Your task to perform on an android device: allow cookies in the chrome app Image 0: 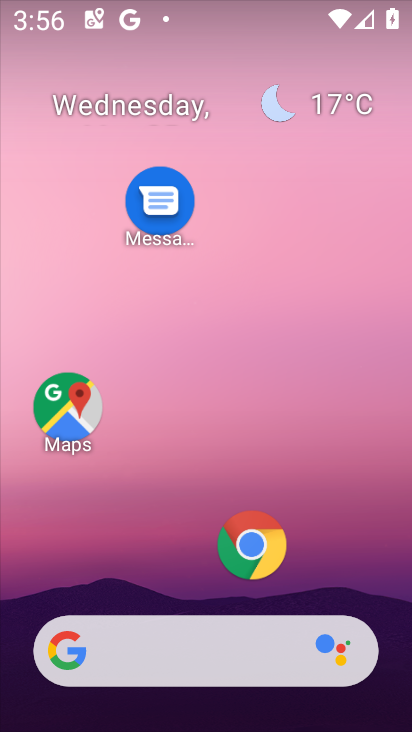
Step 0: click (259, 551)
Your task to perform on an android device: allow cookies in the chrome app Image 1: 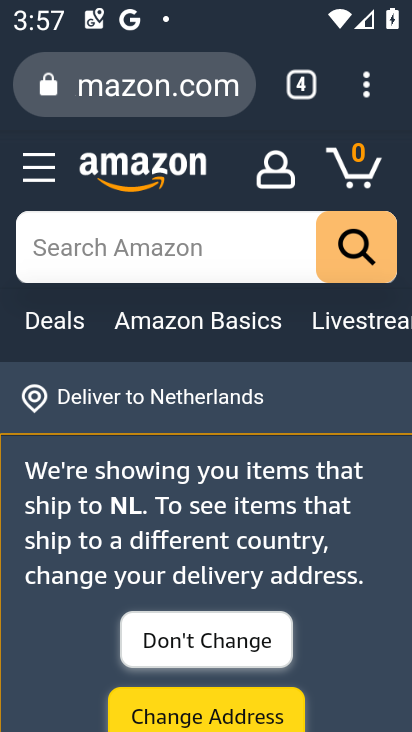
Step 1: click (359, 99)
Your task to perform on an android device: allow cookies in the chrome app Image 2: 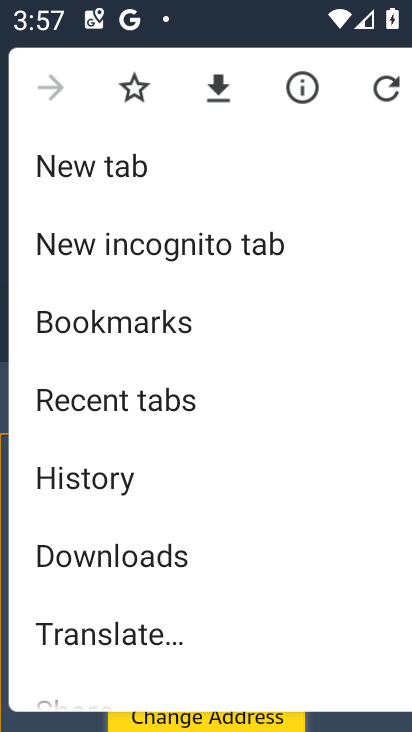
Step 2: drag from (277, 496) to (297, 173)
Your task to perform on an android device: allow cookies in the chrome app Image 3: 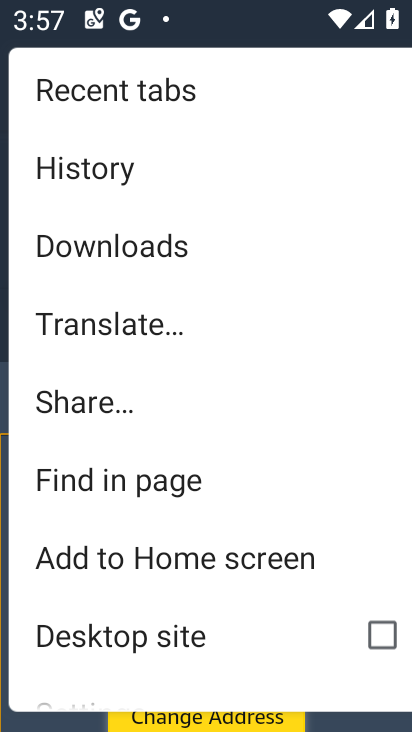
Step 3: drag from (279, 625) to (320, 169)
Your task to perform on an android device: allow cookies in the chrome app Image 4: 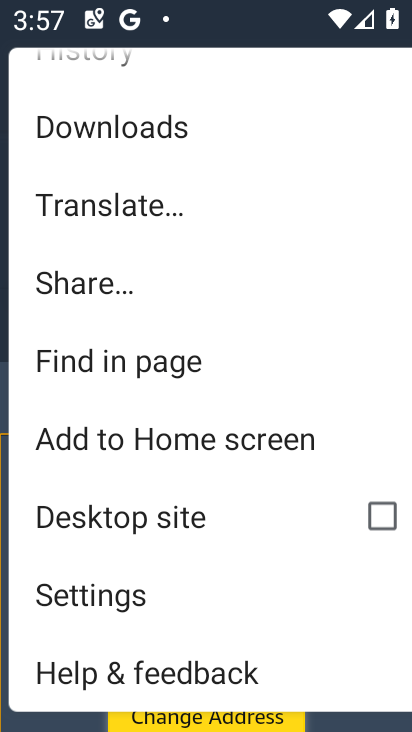
Step 4: click (134, 581)
Your task to perform on an android device: allow cookies in the chrome app Image 5: 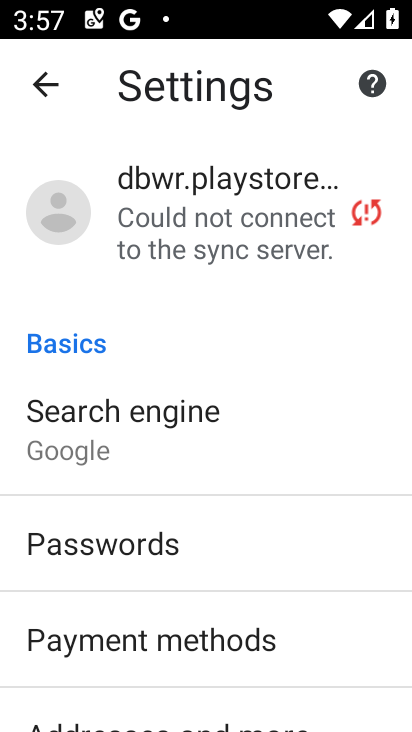
Step 5: drag from (207, 651) to (221, 363)
Your task to perform on an android device: allow cookies in the chrome app Image 6: 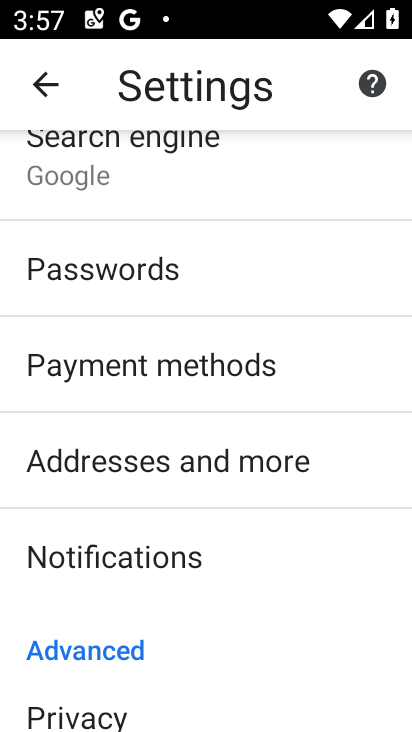
Step 6: drag from (295, 614) to (258, 184)
Your task to perform on an android device: allow cookies in the chrome app Image 7: 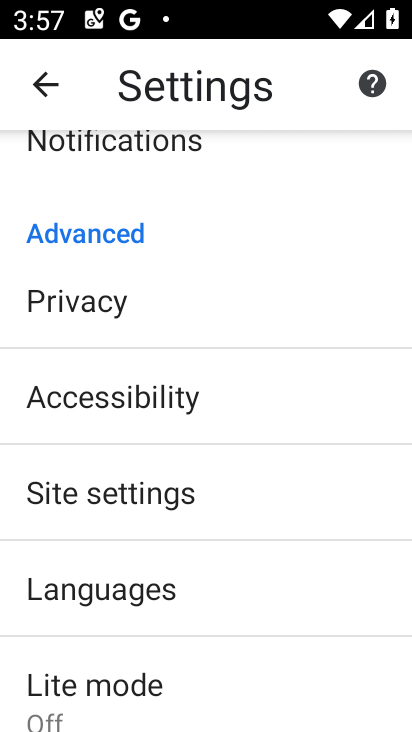
Step 7: click (251, 501)
Your task to perform on an android device: allow cookies in the chrome app Image 8: 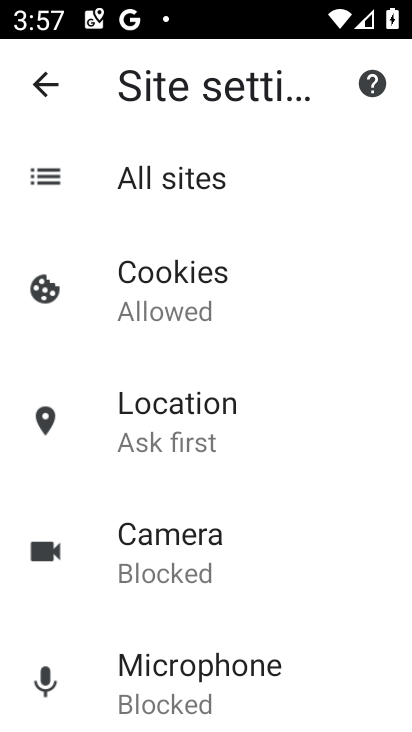
Step 8: click (186, 307)
Your task to perform on an android device: allow cookies in the chrome app Image 9: 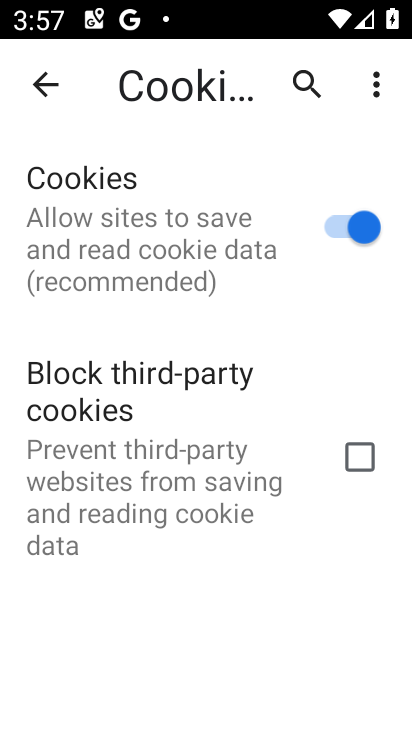
Step 9: task complete